Your task to perform on an android device: turn notification dots off Image 0: 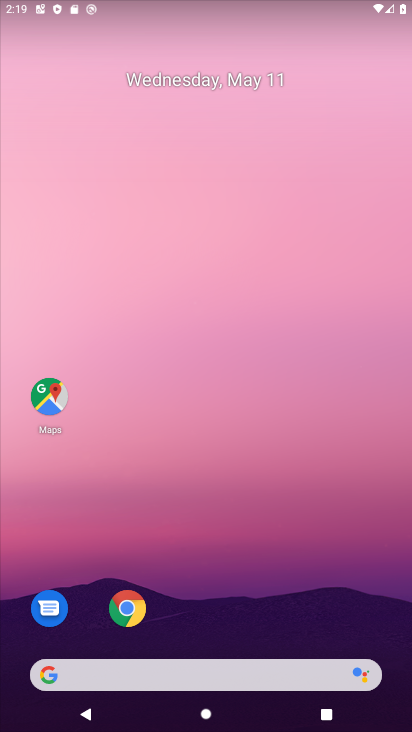
Step 0: drag from (262, 618) to (250, 404)
Your task to perform on an android device: turn notification dots off Image 1: 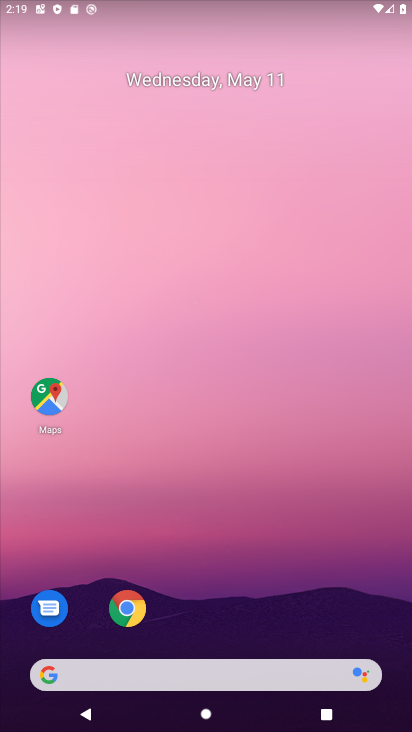
Step 1: drag from (238, 613) to (225, 366)
Your task to perform on an android device: turn notification dots off Image 2: 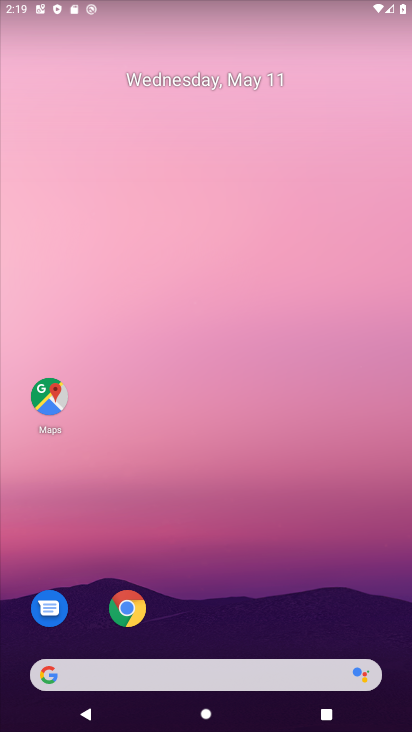
Step 2: drag from (252, 621) to (228, 325)
Your task to perform on an android device: turn notification dots off Image 3: 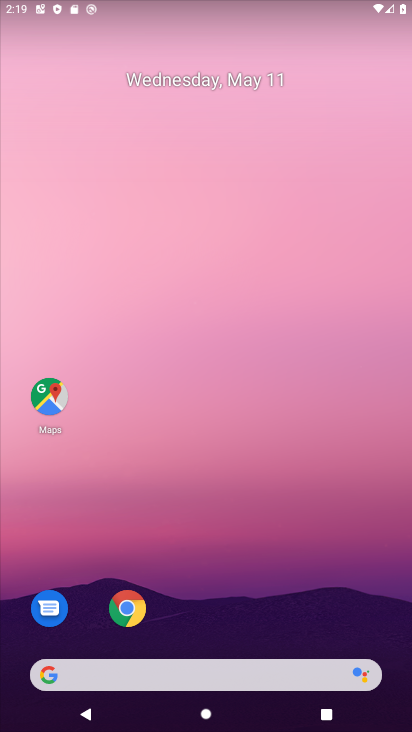
Step 3: drag from (269, 637) to (240, 9)
Your task to perform on an android device: turn notification dots off Image 4: 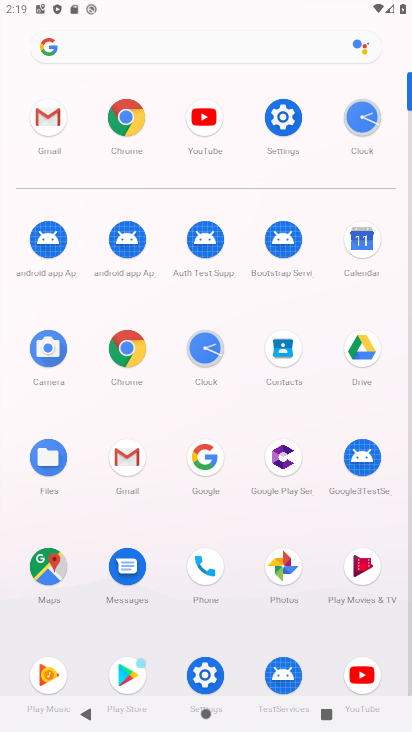
Step 4: click (282, 131)
Your task to perform on an android device: turn notification dots off Image 5: 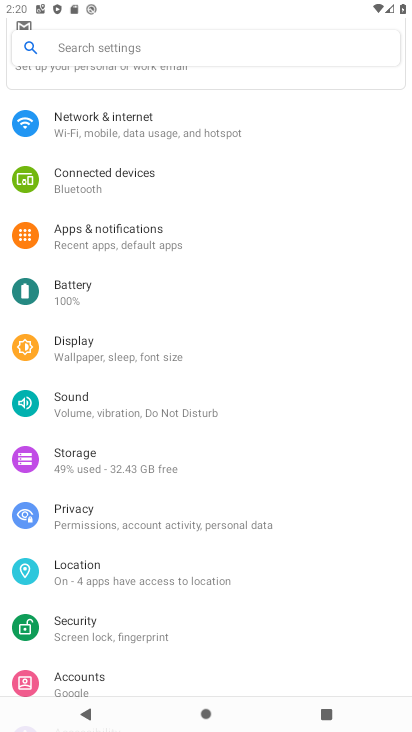
Step 5: click (149, 239)
Your task to perform on an android device: turn notification dots off Image 6: 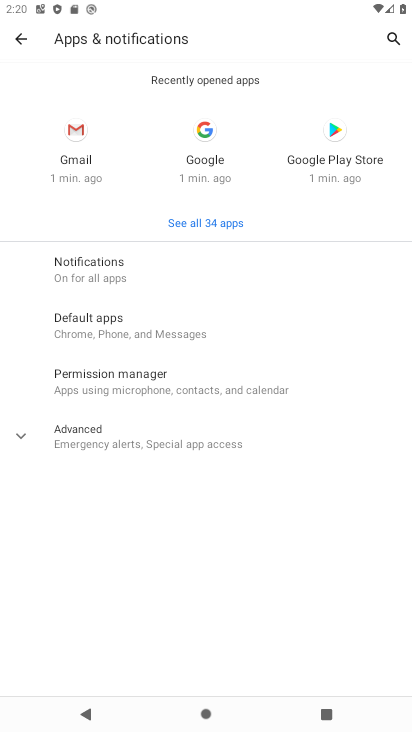
Step 6: click (142, 280)
Your task to perform on an android device: turn notification dots off Image 7: 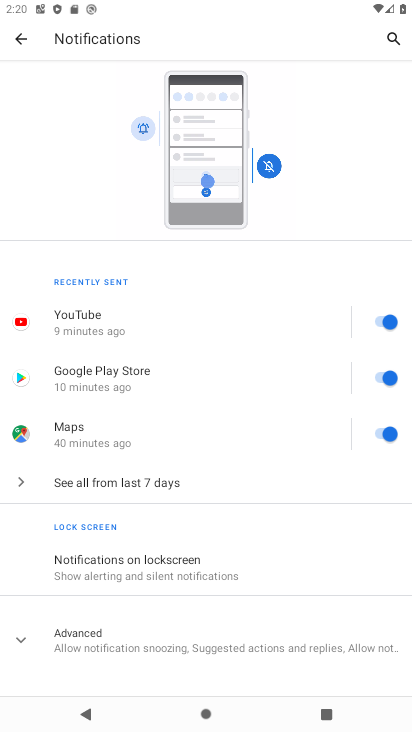
Step 7: click (182, 640)
Your task to perform on an android device: turn notification dots off Image 8: 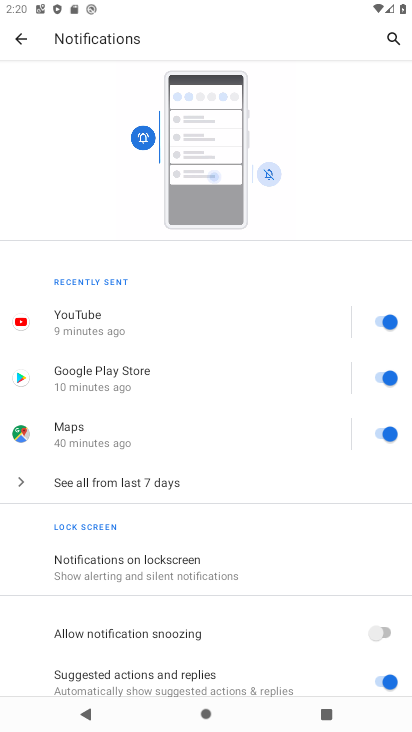
Step 8: drag from (234, 655) to (225, 457)
Your task to perform on an android device: turn notification dots off Image 9: 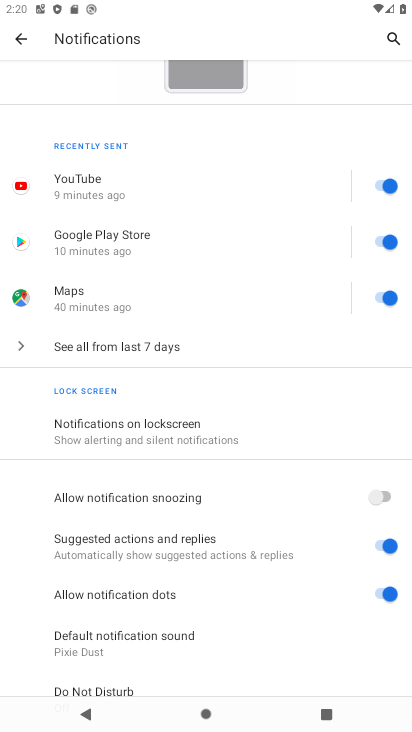
Step 9: click (386, 590)
Your task to perform on an android device: turn notification dots off Image 10: 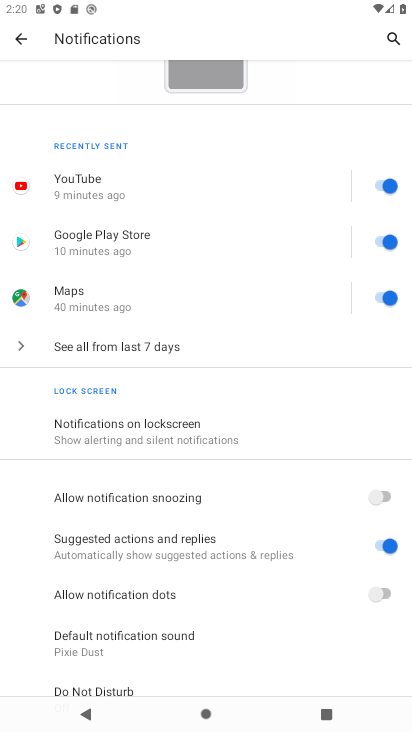
Step 10: task complete